Your task to perform on an android device: Go to display settings Image 0: 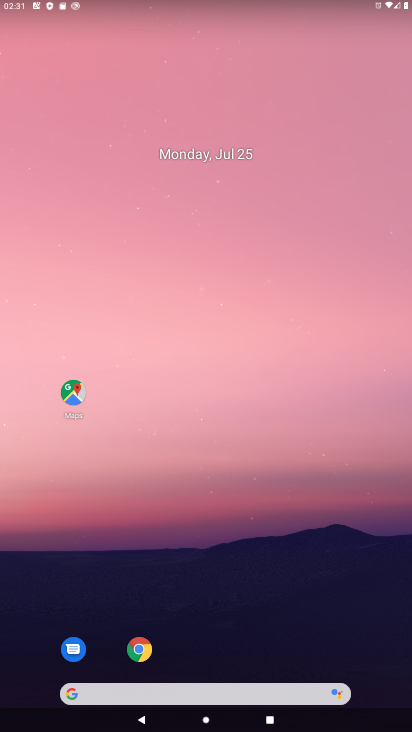
Step 0: drag from (374, 647) to (365, 171)
Your task to perform on an android device: Go to display settings Image 1: 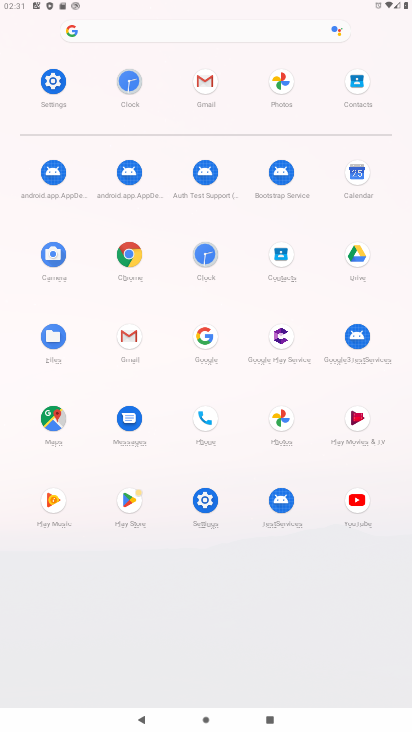
Step 1: click (207, 504)
Your task to perform on an android device: Go to display settings Image 2: 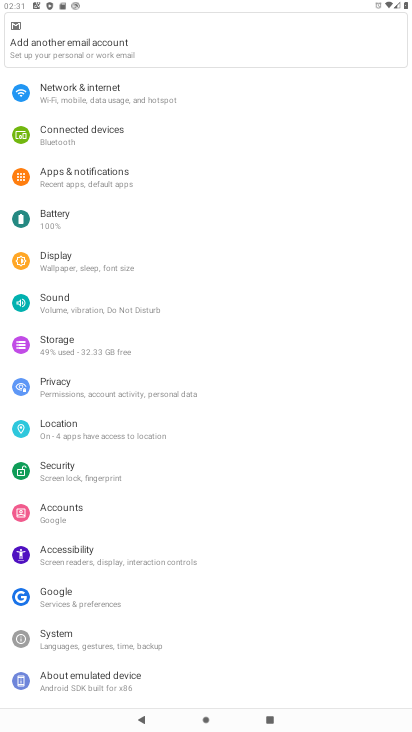
Step 2: click (68, 263)
Your task to perform on an android device: Go to display settings Image 3: 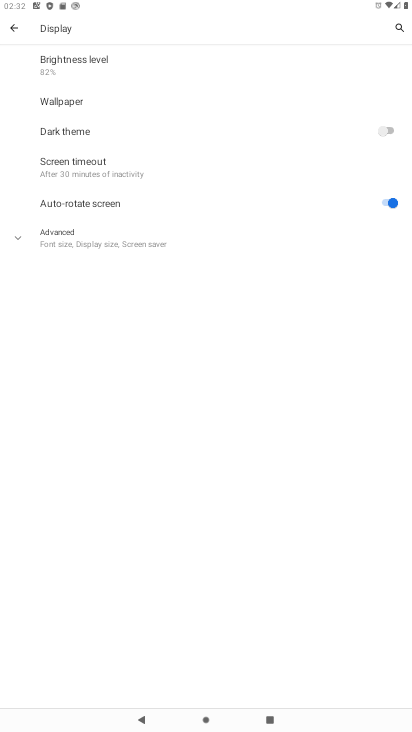
Step 3: click (17, 239)
Your task to perform on an android device: Go to display settings Image 4: 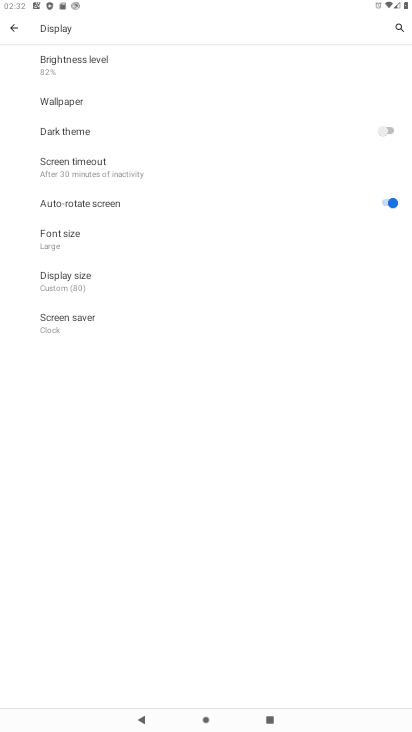
Step 4: task complete